Your task to perform on an android device: delete location history Image 0: 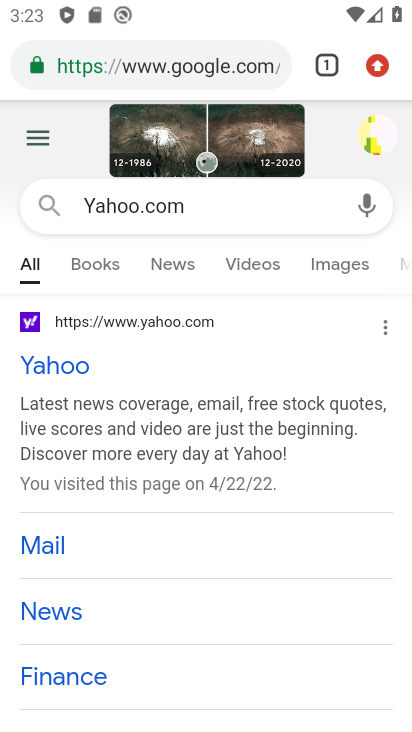
Step 0: press home button
Your task to perform on an android device: delete location history Image 1: 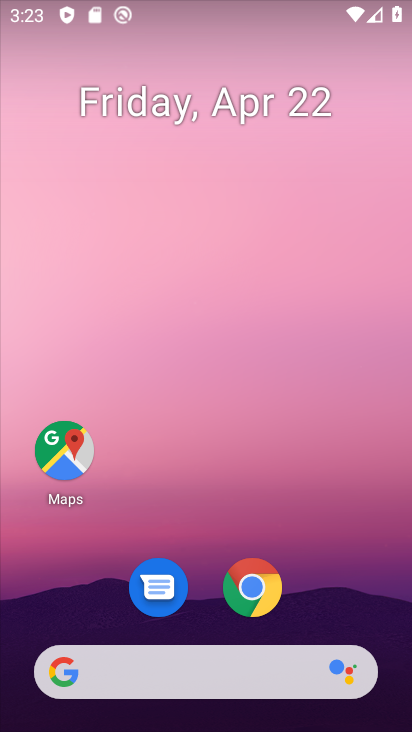
Step 1: click (62, 458)
Your task to perform on an android device: delete location history Image 2: 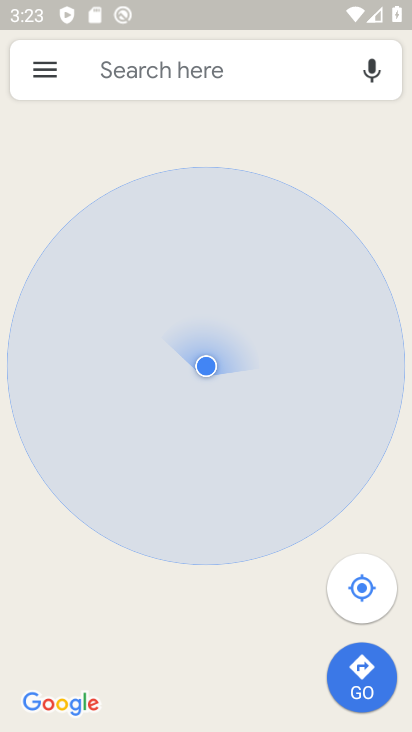
Step 2: click (30, 68)
Your task to perform on an android device: delete location history Image 3: 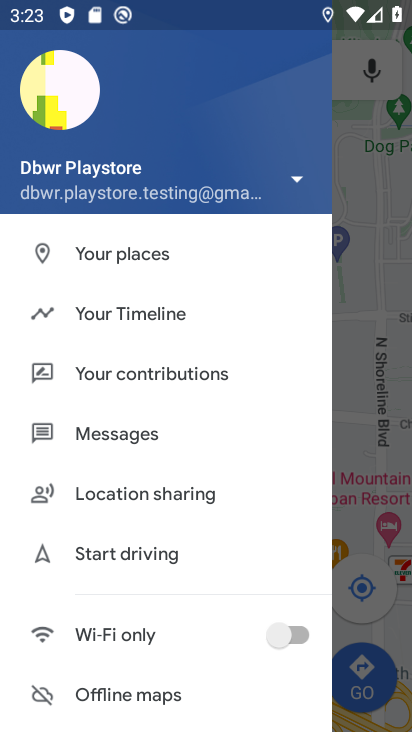
Step 3: drag from (134, 473) to (121, 298)
Your task to perform on an android device: delete location history Image 4: 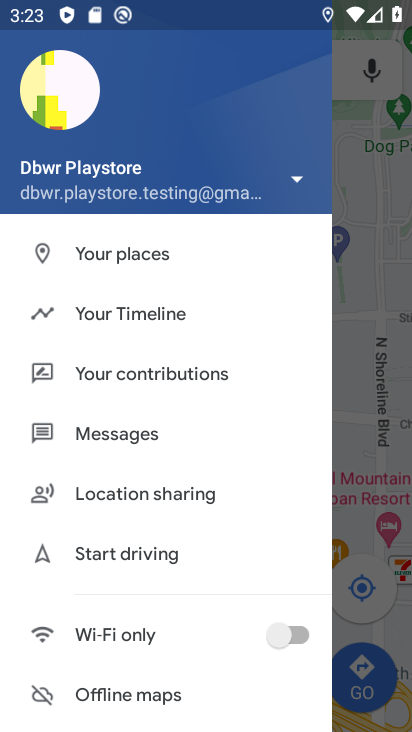
Step 4: drag from (113, 598) to (192, 381)
Your task to perform on an android device: delete location history Image 5: 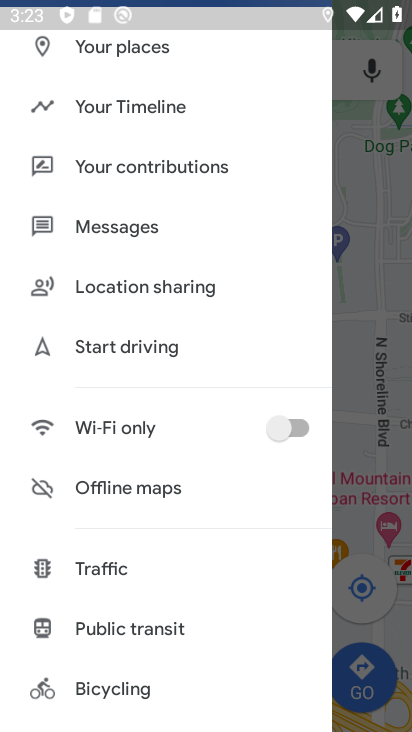
Step 5: drag from (151, 562) to (208, 371)
Your task to perform on an android device: delete location history Image 6: 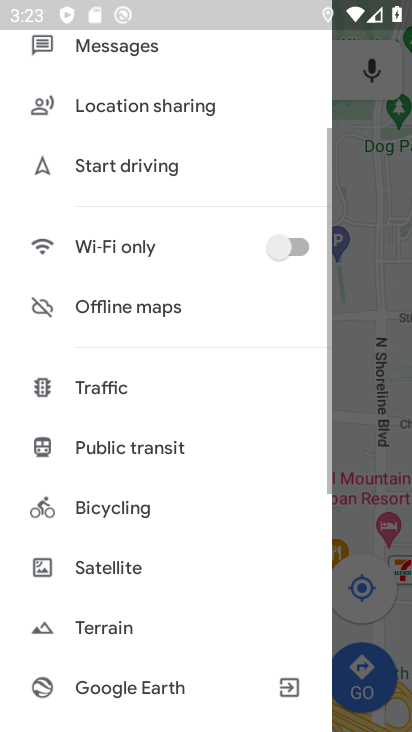
Step 6: drag from (153, 533) to (195, 412)
Your task to perform on an android device: delete location history Image 7: 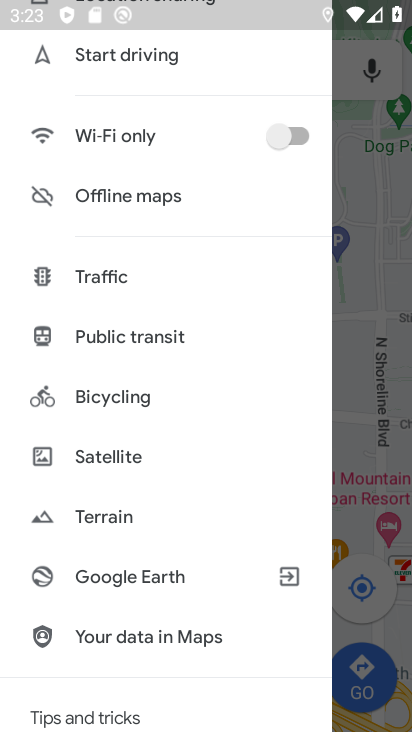
Step 7: drag from (159, 538) to (216, 397)
Your task to perform on an android device: delete location history Image 8: 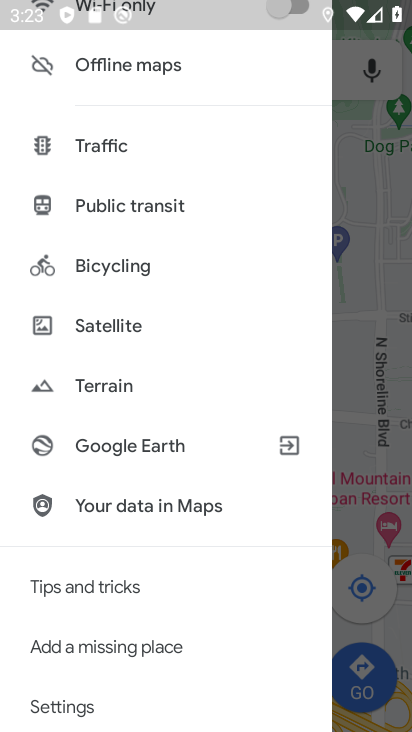
Step 8: drag from (152, 565) to (214, 367)
Your task to perform on an android device: delete location history Image 9: 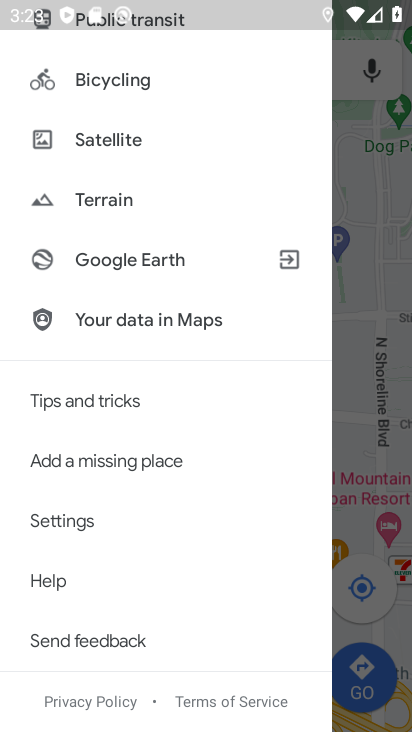
Step 9: click (93, 525)
Your task to perform on an android device: delete location history Image 10: 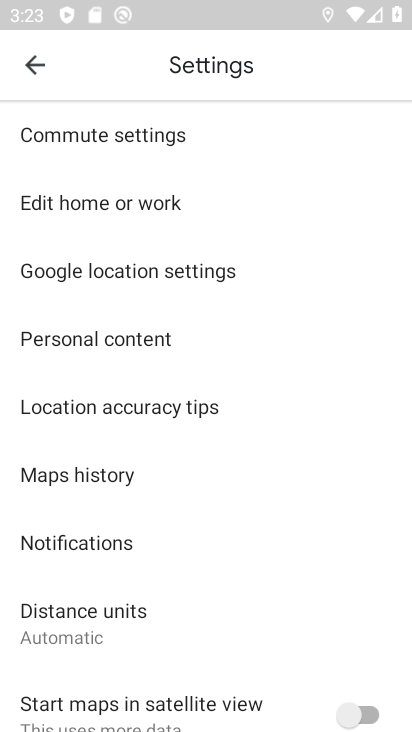
Step 10: click (171, 342)
Your task to perform on an android device: delete location history Image 11: 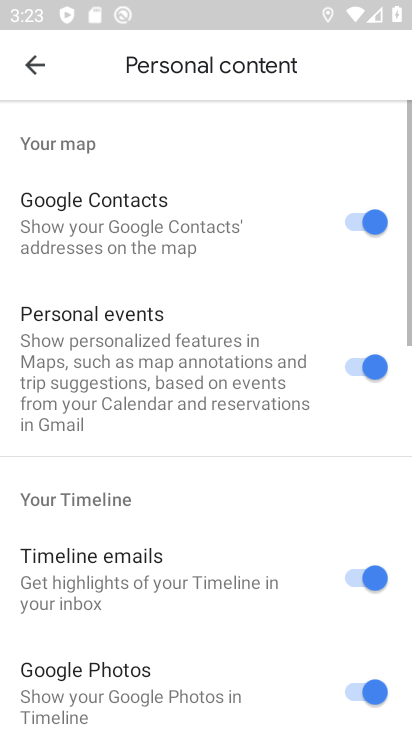
Step 11: drag from (213, 503) to (258, 230)
Your task to perform on an android device: delete location history Image 12: 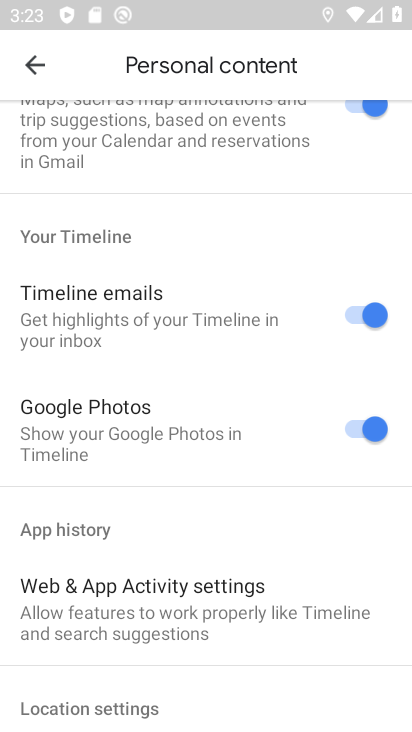
Step 12: drag from (178, 480) to (220, 300)
Your task to perform on an android device: delete location history Image 13: 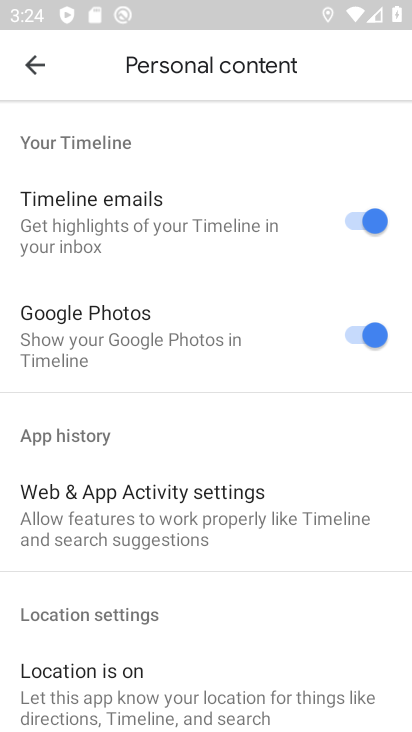
Step 13: drag from (173, 441) to (224, 243)
Your task to perform on an android device: delete location history Image 14: 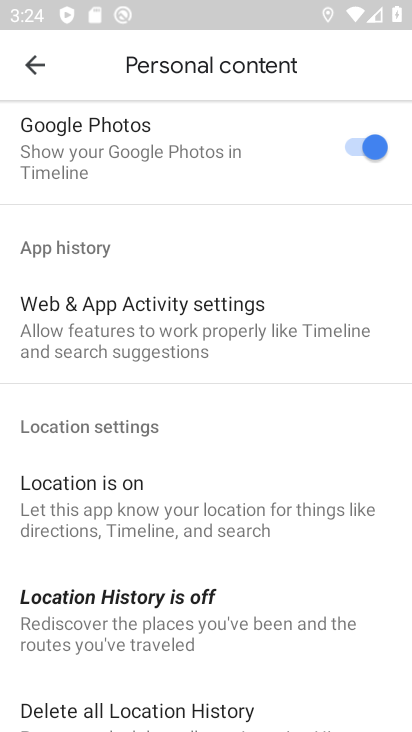
Step 14: drag from (174, 453) to (231, 240)
Your task to perform on an android device: delete location history Image 15: 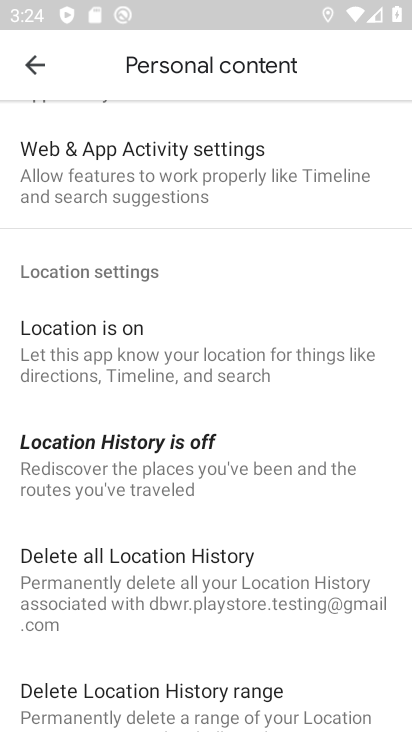
Step 15: drag from (205, 416) to (272, 215)
Your task to perform on an android device: delete location history Image 16: 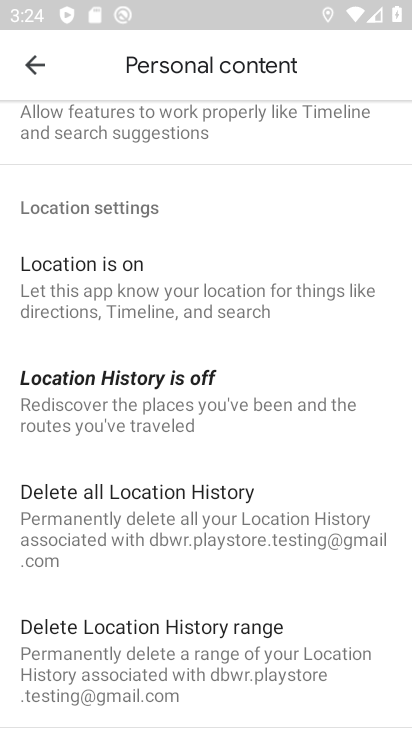
Step 16: click (189, 496)
Your task to perform on an android device: delete location history Image 17: 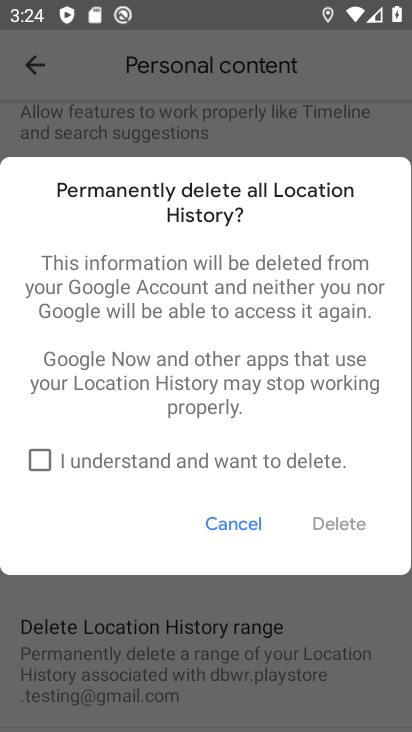
Step 17: click (46, 455)
Your task to perform on an android device: delete location history Image 18: 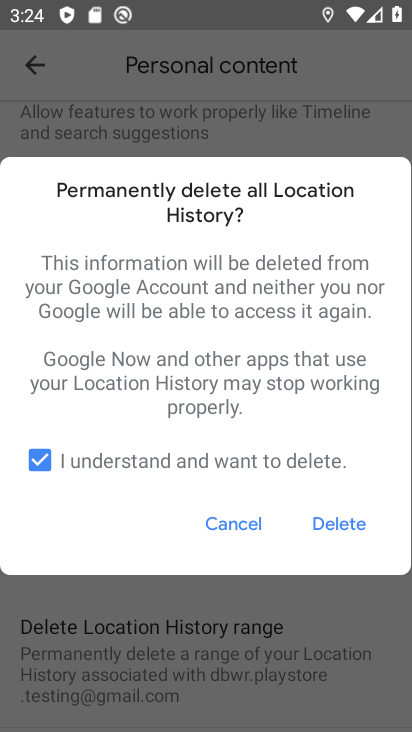
Step 18: click (356, 522)
Your task to perform on an android device: delete location history Image 19: 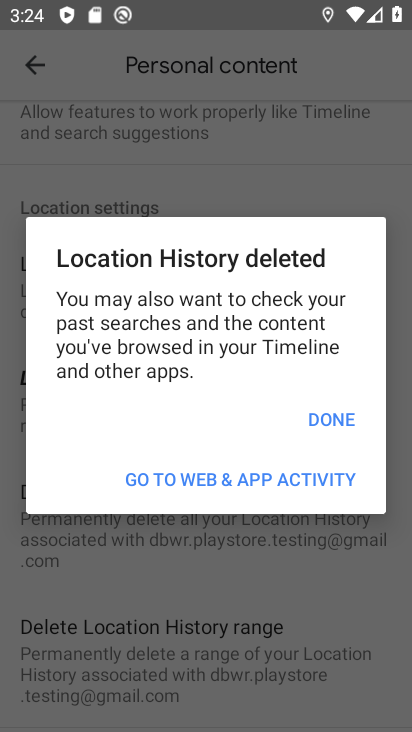
Step 19: click (333, 413)
Your task to perform on an android device: delete location history Image 20: 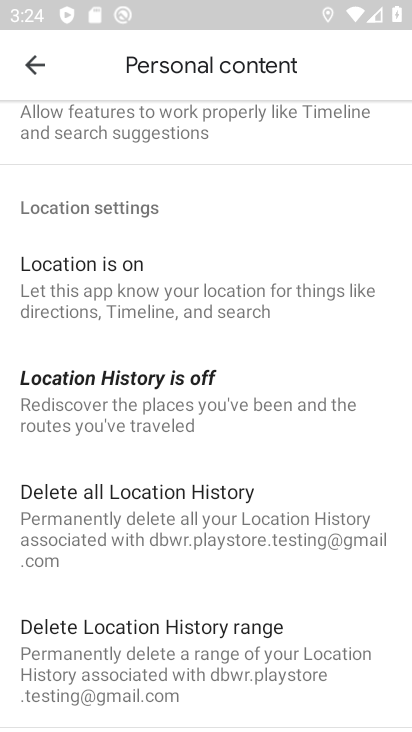
Step 20: task complete